Your task to perform on an android device: visit the assistant section in the google photos Image 0: 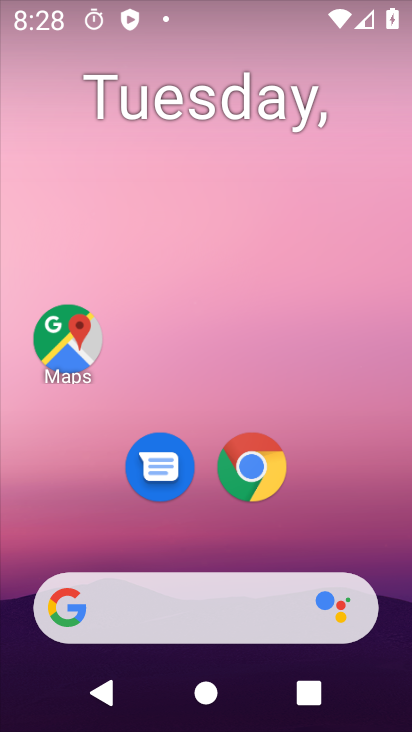
Step 0: drag from (358, 537) to (299, 186)
Your task to perform on an android device: visit the assistant section in the google photos Image 1: 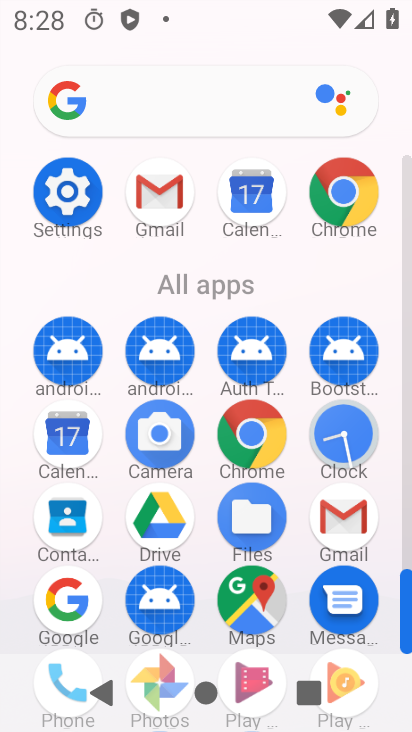
Step 1: drag from (394, 560) to (389, 368)
Your task to perform on an android device: visit the assistant section in the google photos Image 2: 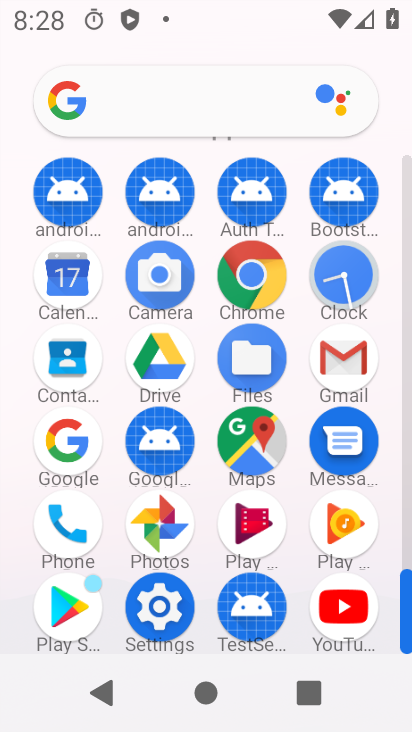
Step 2: click (159, 527)
Your task to perform on an android device: visit the assistant section in the google photos Image 3: 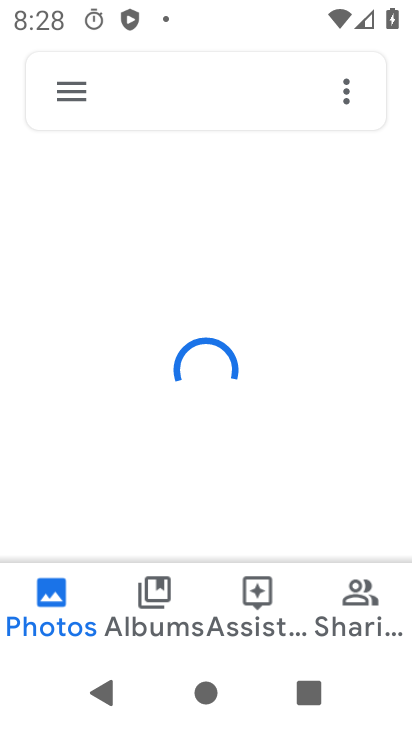
Step 3: click (259, 596)
Your task to perform on an android device: visit the assistant section in the google photos Image 4: 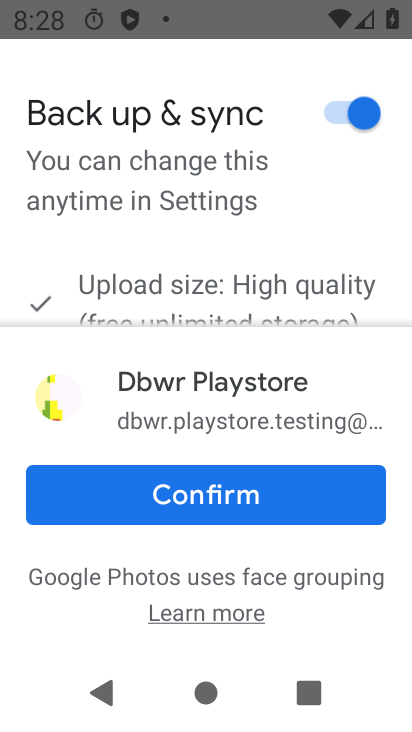
Step 4: click (248, 503)
Your task to perform on an android device: visit the assistant section in the google photos Image 5: 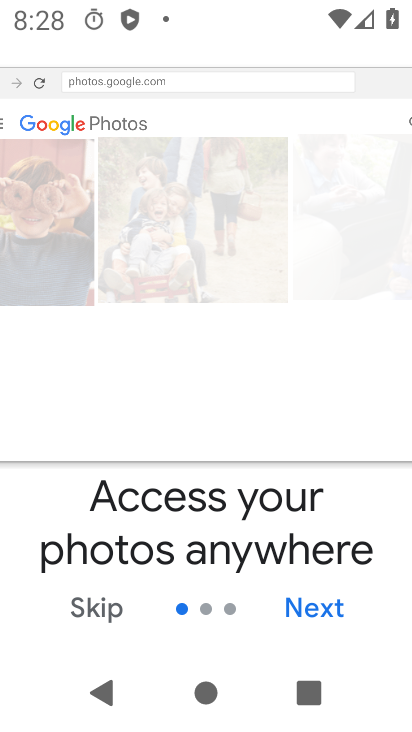
Step 5: click (96, 617)
Your task to perform on an android device: visit the assistant section in the google photos Image 6: 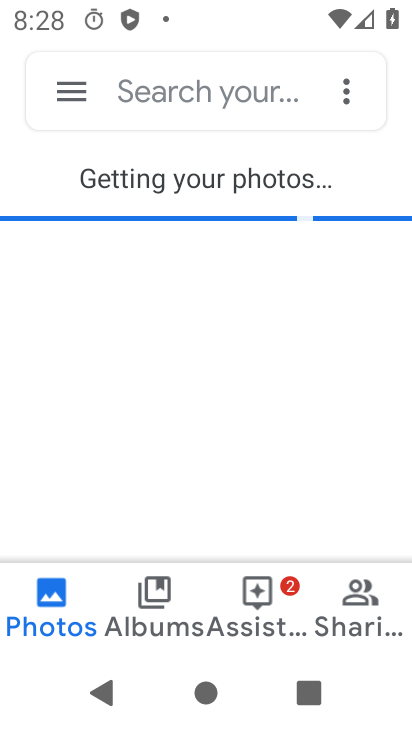
Step 6: click (248, 619)
Your task to perform on an android device: visit the assistant section in the google photos Image 7: 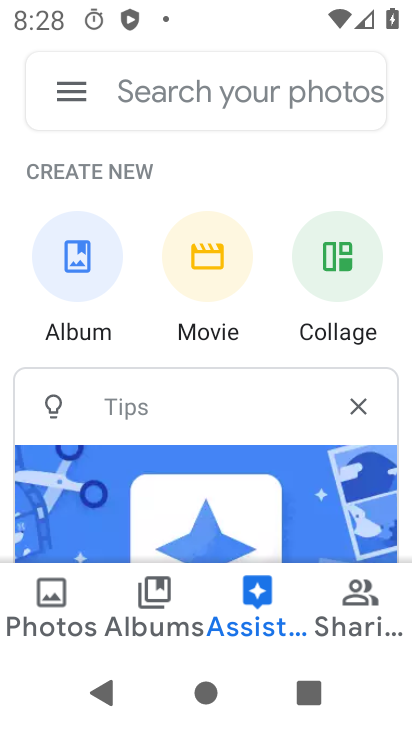
Step 7: task complete